Your task to perform on an android device: turn off location Image 0: 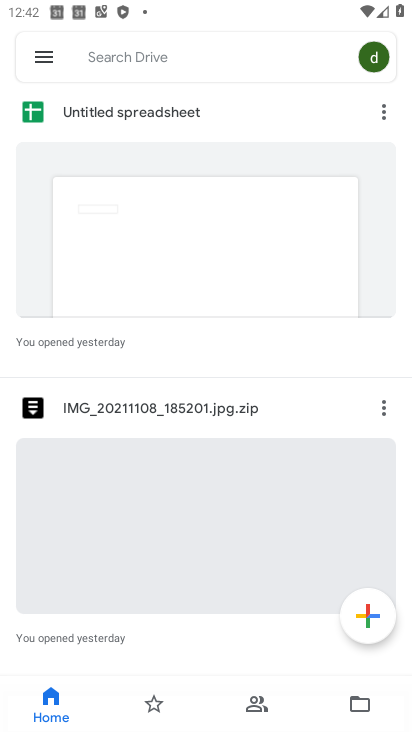
Step 0: click (47, 393)
Your task to perform on an android device: turn off location Image 1: 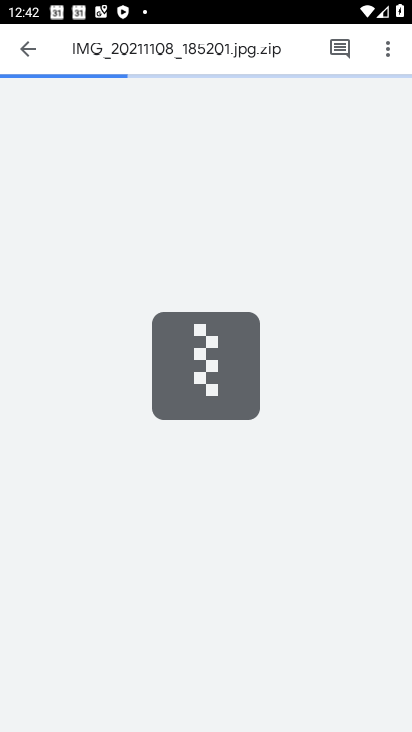
Step 1: press home button
Your task to perform on an android device: turn off location Image 2: 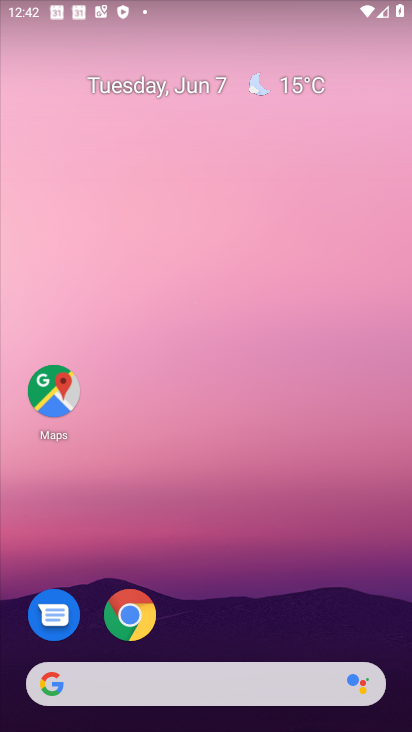
Step 2: drag from (191, 634) to (202, 183)
Your task to perform on an android device: turn off location Image 3: 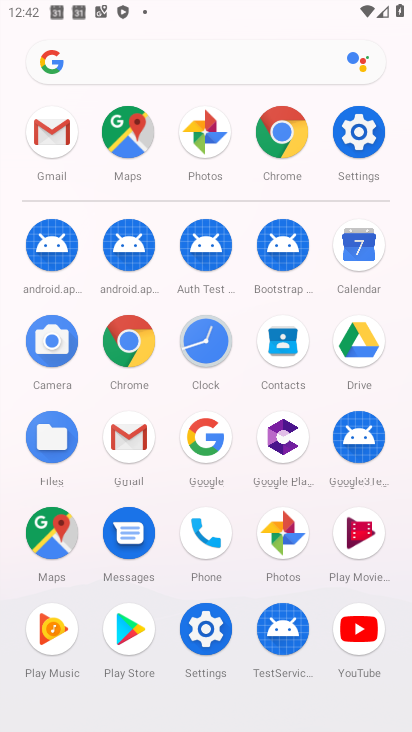
Step 3: click (355, 141)
Your task to perform on an android device: turn off location Image 4: 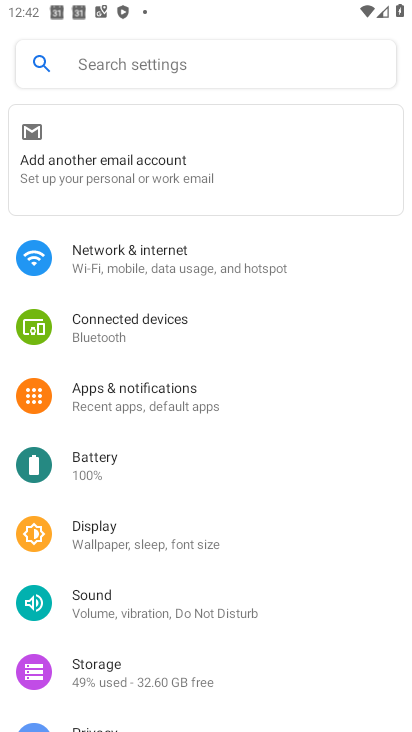
Step 4: drag from (169, 687) to (165, 327)
Your task to perform on an android device: turn off location Image 5: 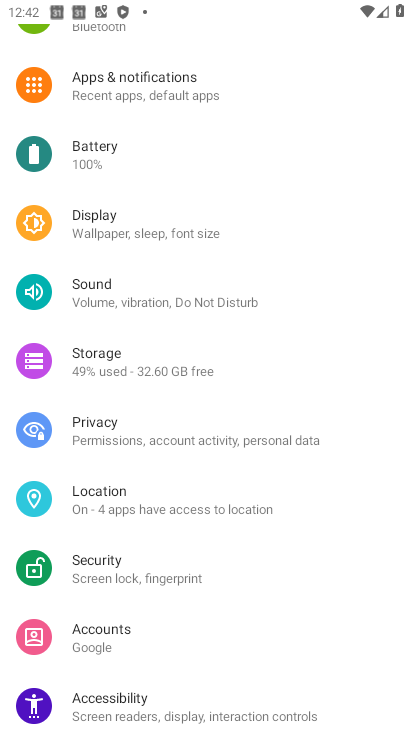
Step 5: click (168, 508)
Your task to perform on an android device: turn off location Image 6: 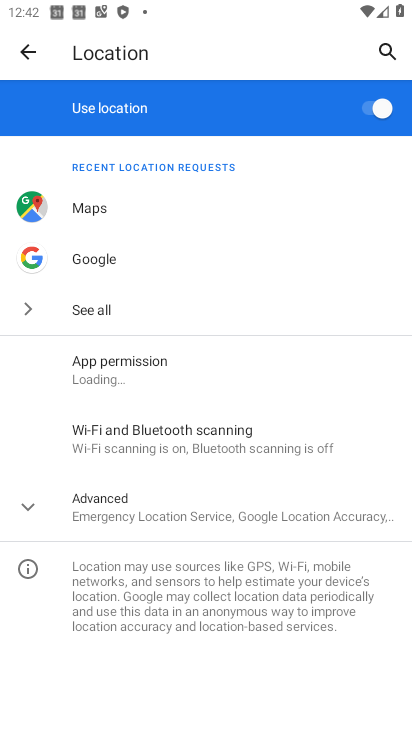
Step 6: click (359, 114)
Your task to perform on an android device: turn off location Image 7: 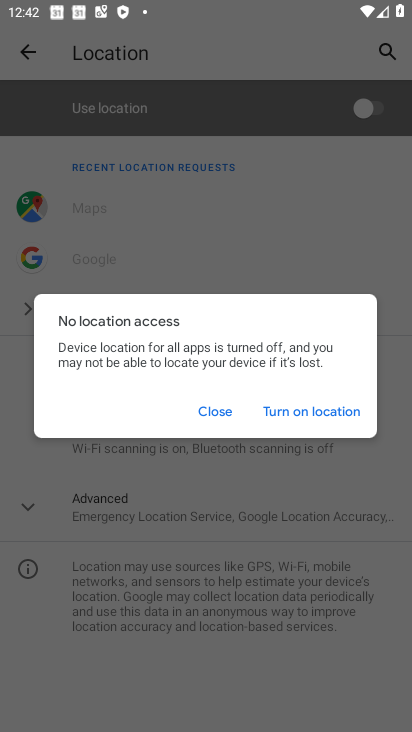
Step 7: task complete